Your task to perform on an android device: Open Google Chrome and click the shortcut for Amazon.com Image 0: 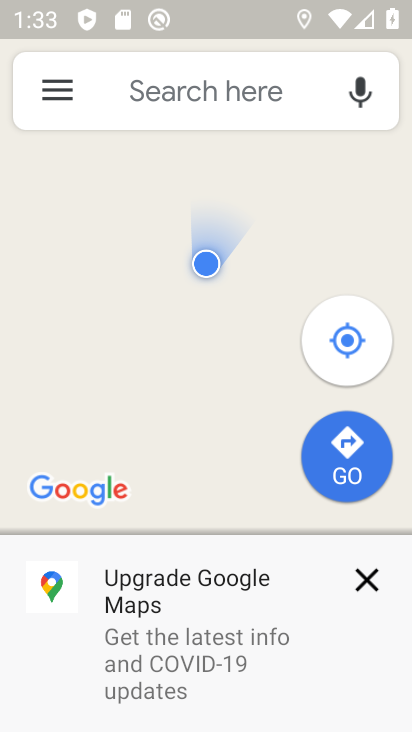
Step 0: press back button
Your task to perform on an android device: Open Google Chrome and click the shortcut for Amazon.com Image 1: 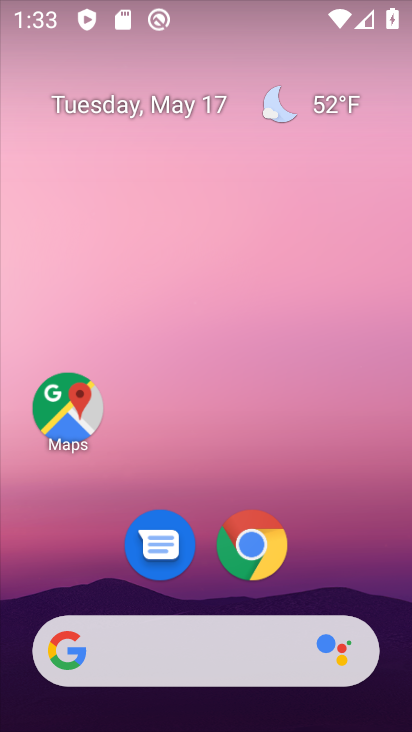
Step 1: drag from (337, 587) to (342, 155)
Your task to perform on an android device: Open Google Chrome and click the shortcut for Amazon.com Image 2: 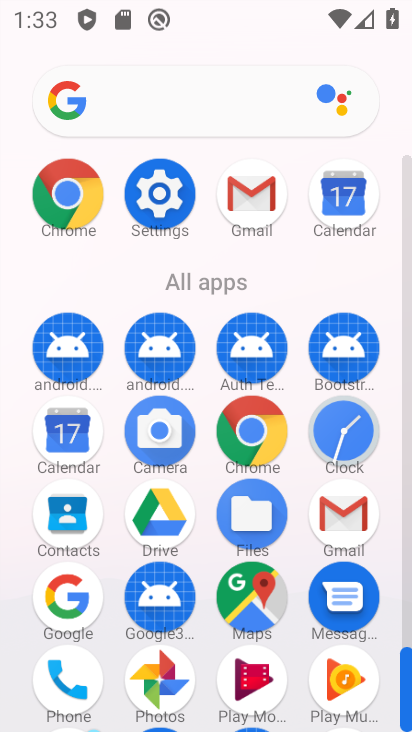
Step 2: click (268, 433)
Your task to perform on an android device: Open Google Chrome and click the shortcut for Amazon.com Image 3: 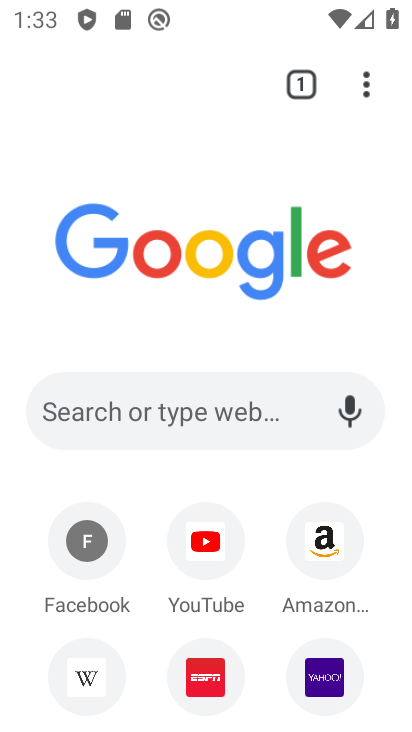
Step 3: drag from (266, 638) to (259, 542)
Your task to perform on an android device: Open Google Chrome and click the shortcut for Amazon.com Image 4: 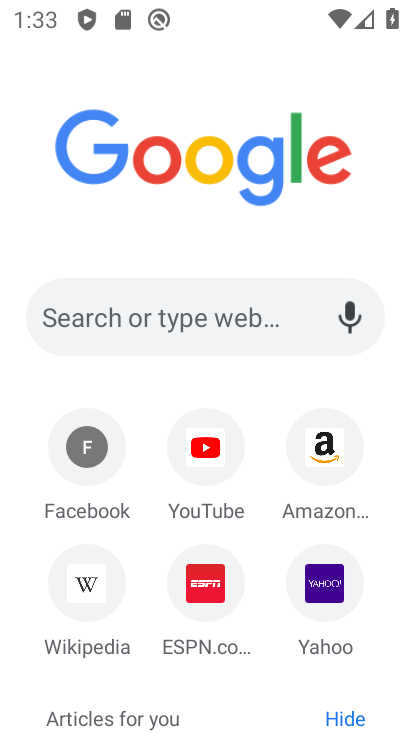
Step 4: click (317, 472)
Your task to perform on an android device: Open Google Chrome and click the shortcut for Amazon.com Image 5: 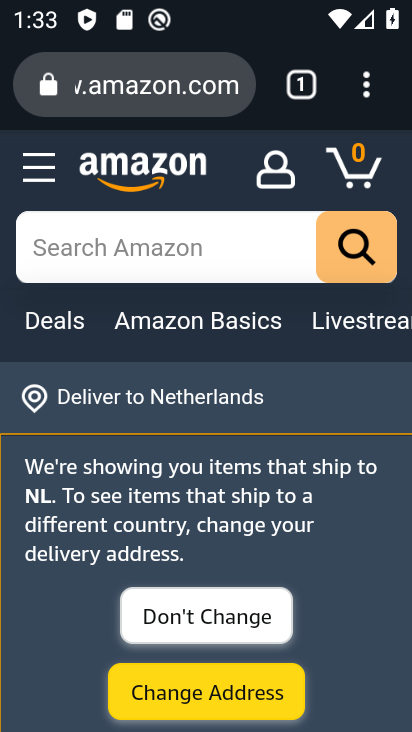
Step 5: task complete